Your task to perform on an android device: change the clock display to analog Image 0: 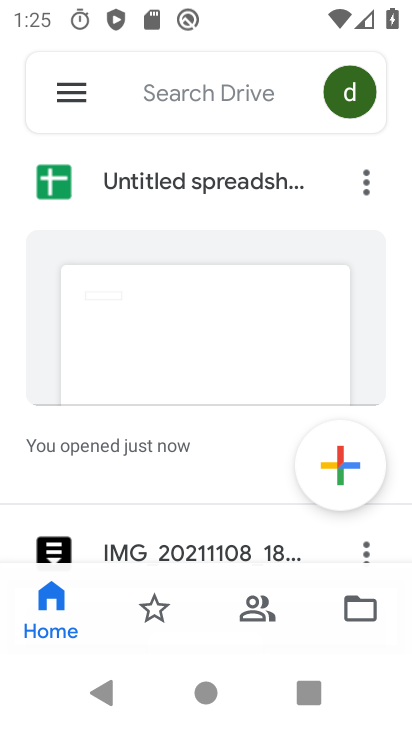
Step 0: press home button
Your task to perform on an android device: change the clock display to analog Image 1: 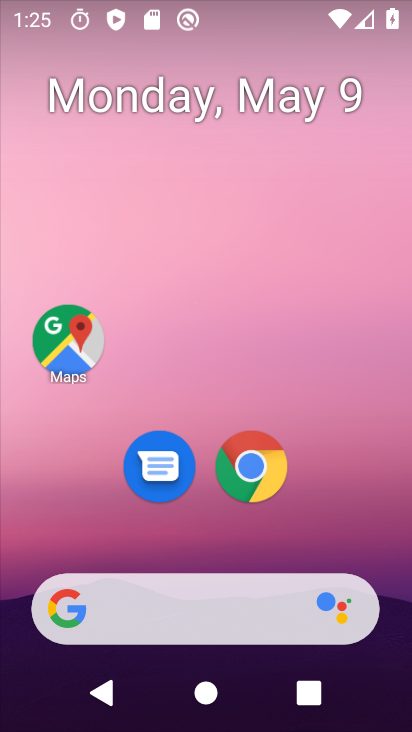
Step 1: drag from (190, 574) to (205, 301)
Your task to perform on an android device: change the clock display to analog Image 2: 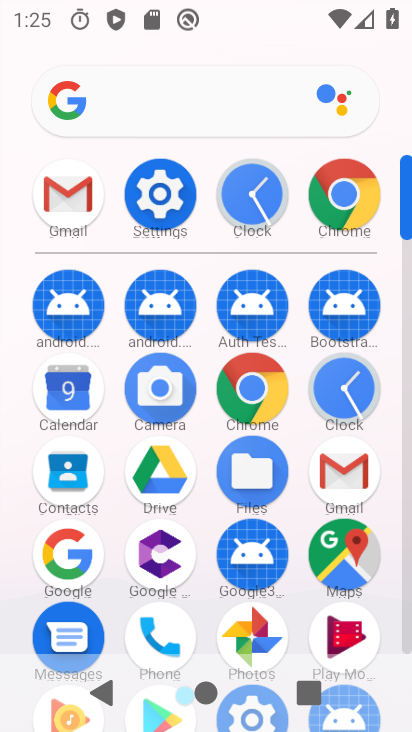
Step 2: click (352, 389)
Your task to perform on an android device: change the clock display to analog Image 3: 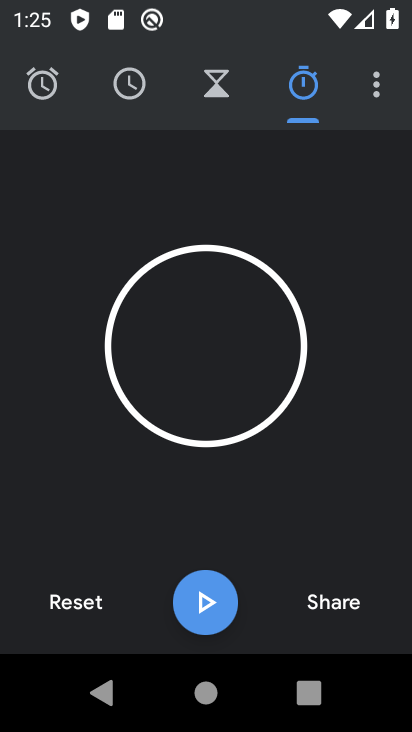
Step 3: click (375, 93)
Your task to perform on an android device: change the clock display to analog Image 4: 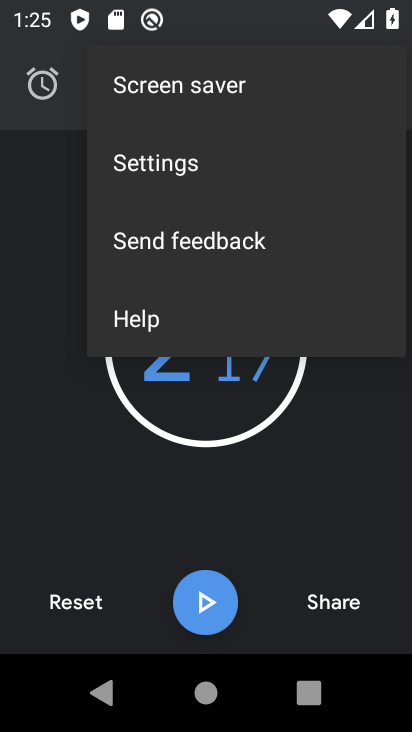
Step 4: click (212, 166)
Your task to perform on an android device: change the clock display to analog Image 5: 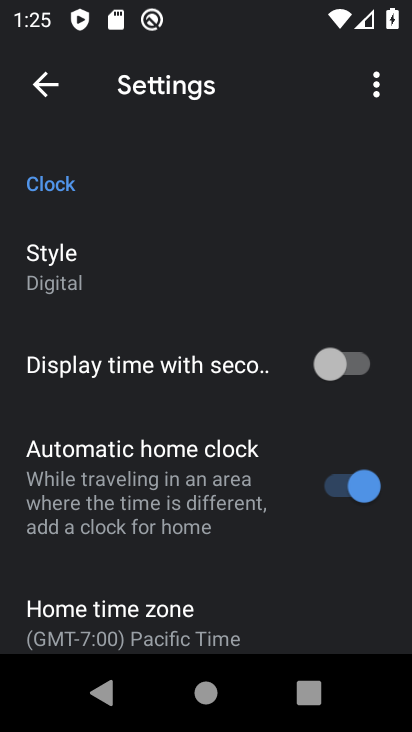
Step 5: click (59, 274)
Your task to perform on an android device: change the clock display to analog Image 6: 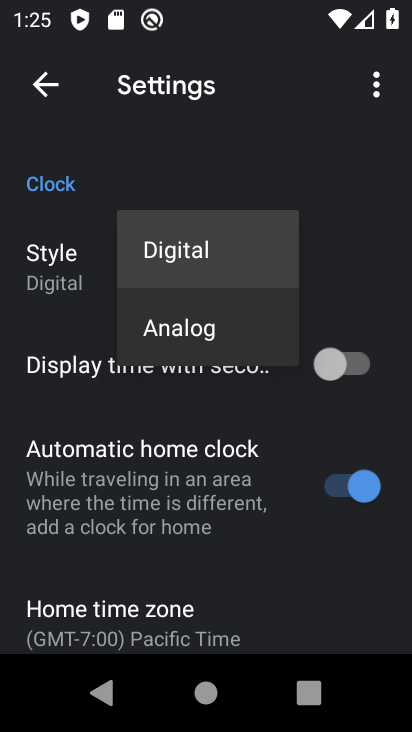
Step 6: click (203, 331)
Your task to perform on an android device: change the clock display to analog Image 7: 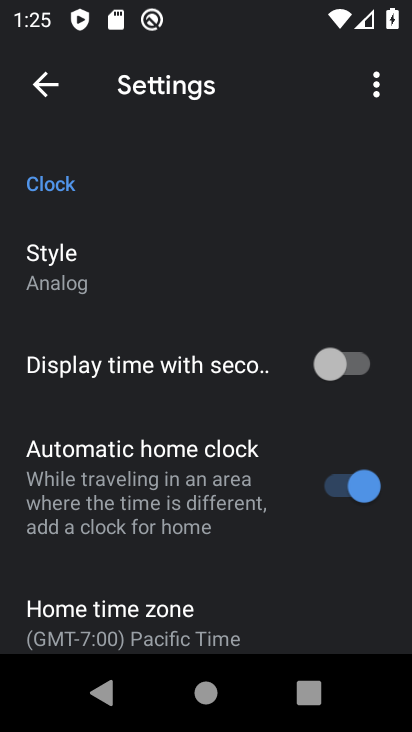
Step 7: task complete